Your task to perform on an android device: open a new tab in the chrome app Image 0: 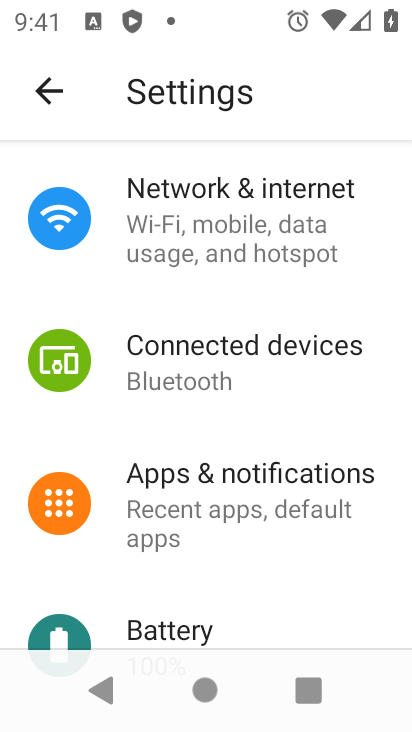
Step 0: press home button
Your task to perform on an android device: open a new tab in the chrome app Image 1: 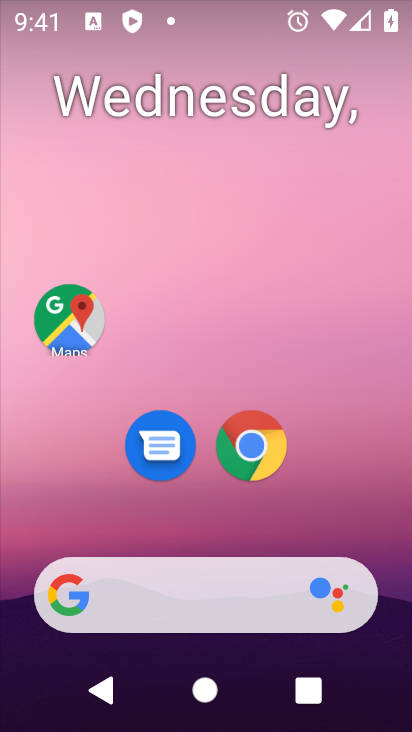
Step 1: drag from (338, 526) to (220, 1)
Your task to perform on an android device: open a new tab in the chrome app Image 2: 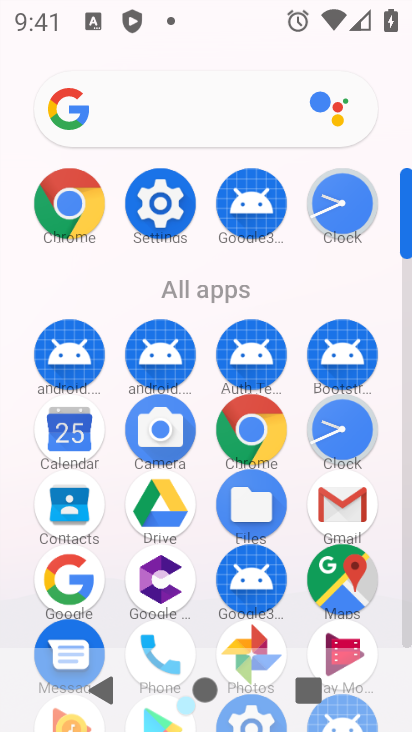
Step 2: click (63, 200)
Your task to perform on an android device: open a new tab in the chrome app Image 3: 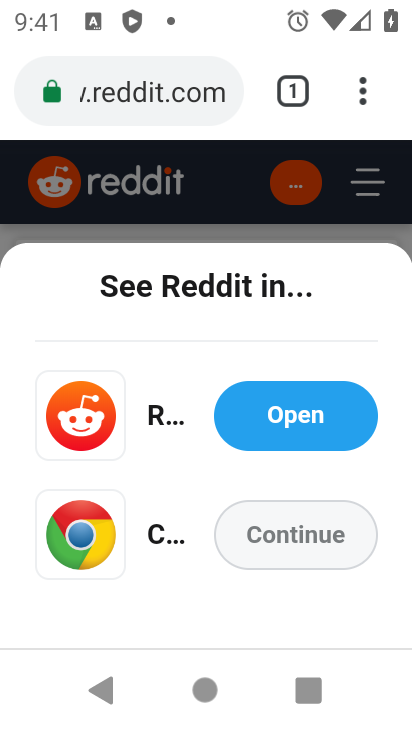
Step 3: task complete